Your task to perform on an android device: turn smart compose on in the gmail app Image 0: 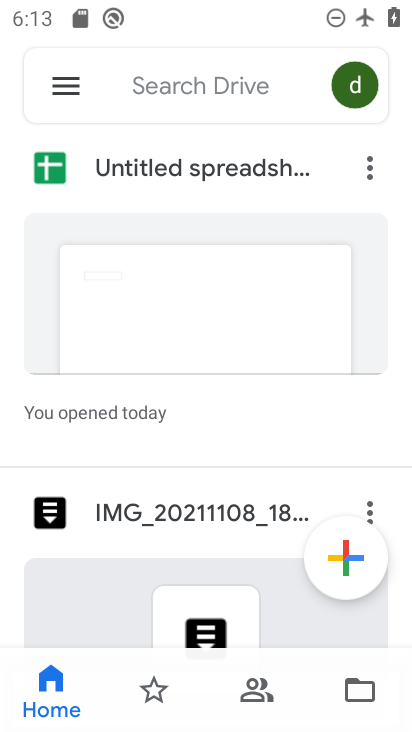
Step 0: press home button
Your task to perform on an android device: turn smart compose on in the gmail app Image 1: 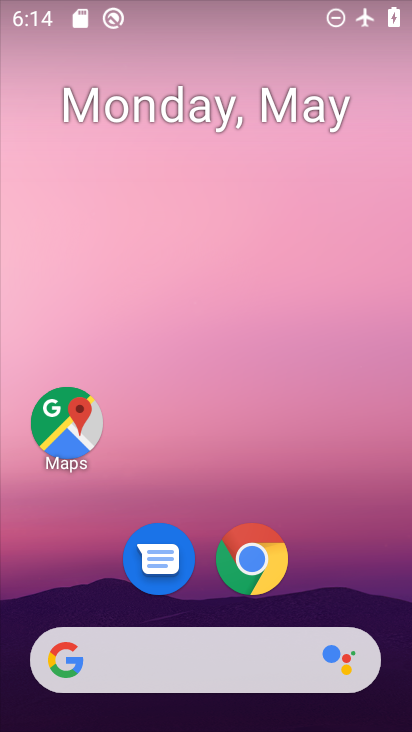
Step 1: drag from (300, 491) to (240, 4)
Your task to perform on an android device: turn smart compose on in the gmail app Image 2: 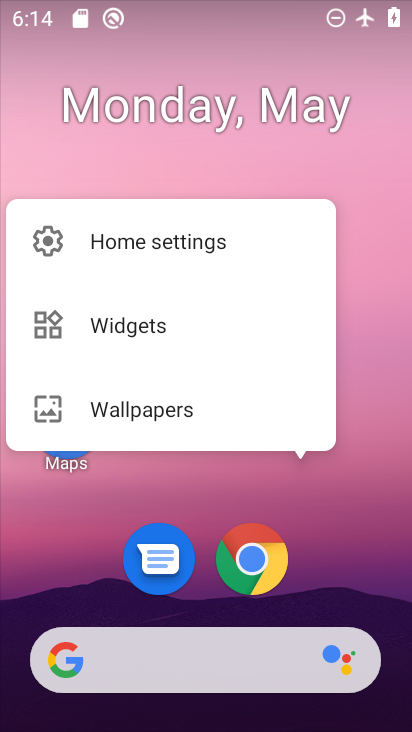
Step 2: click (367, 510)
Your task to perform on an android device: turn smart compose on in the gmail app Image 3: 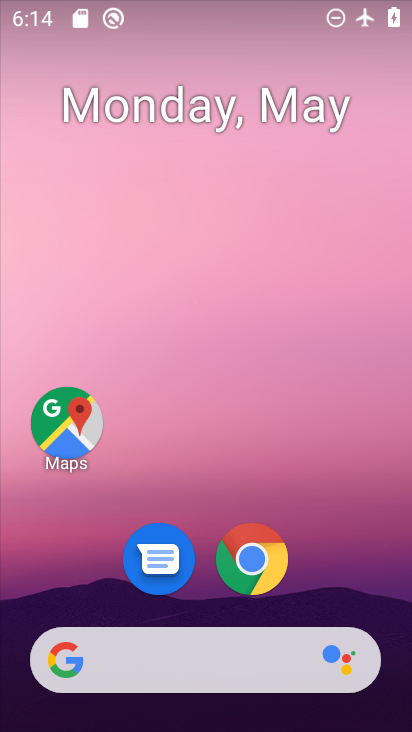
Step 3: drag from (356, 500) to (176, 35)
Your task to perform on an android device: turn smart compose on in the gmail app Image 4: 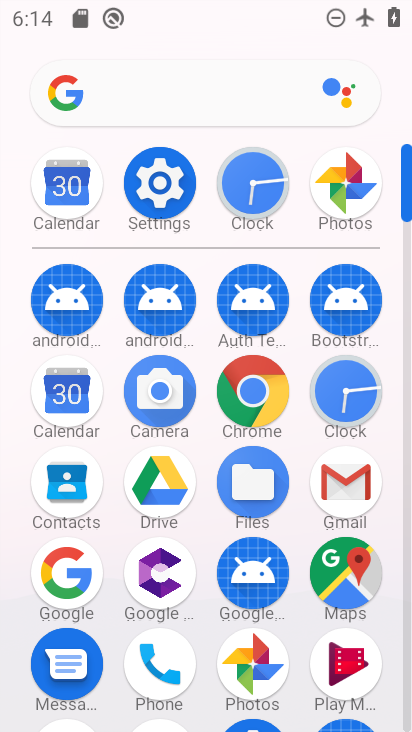
Step 4: click (346, 479)
Your task to perform on an android device: turn smart compose on in the gmail app Image 5: 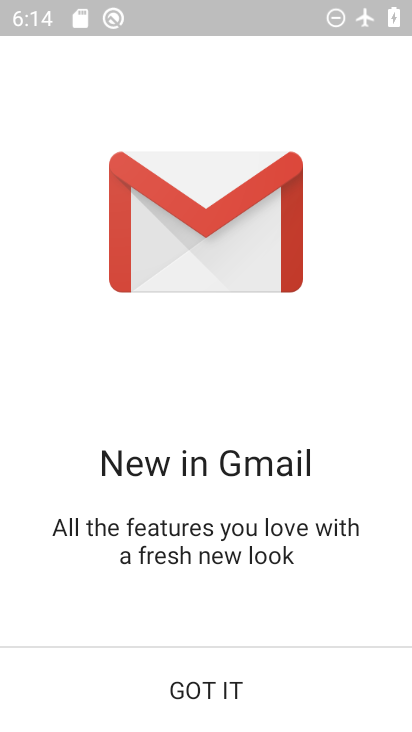
Step 5: click (211, 686)
Your task to perform on an android device: turn smart compose on in the gmail app Image 6: 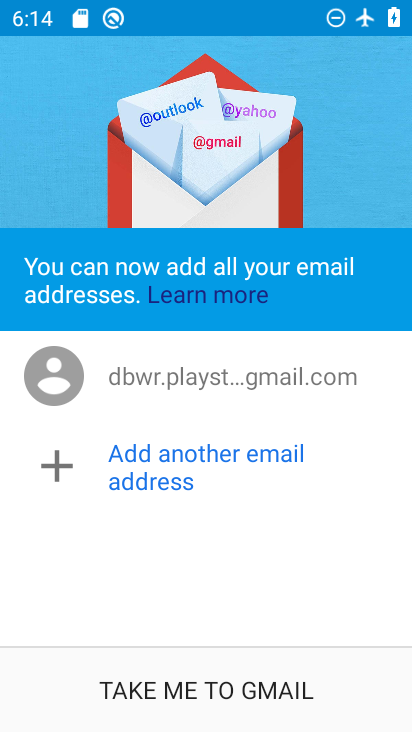
Step 6: click (211, 686)
Your task to perform on an android device: turn smart compose on in the gmail app Image 7: 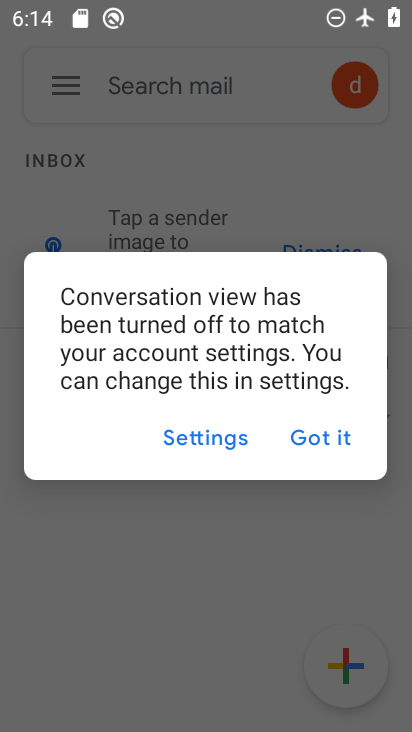
Step 7: click (292, 432)
Your task to perform on an android device: turn smart compose on in the gmail app Image 8: 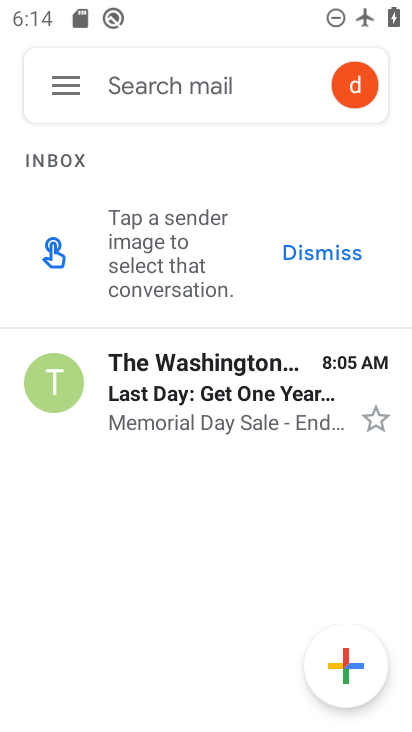
Step 8: click (68, 83)
Your task to perform on an android device: turn smart compose on in the gmail app Image 9: 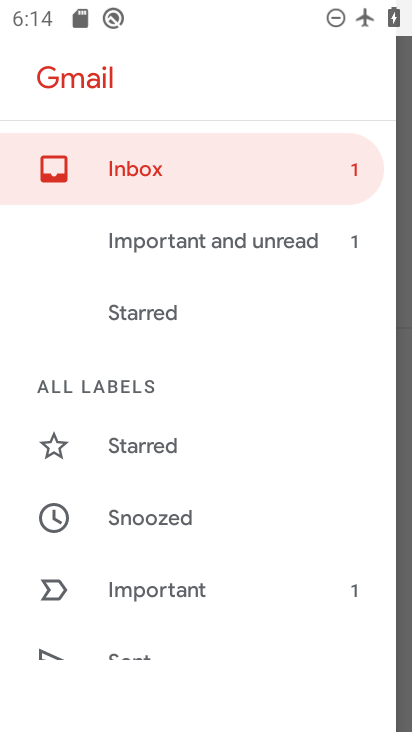
Step 9: drag from (228, 542) to (228, 234)
Your task to perform on an android device: turn smart compose on in the gmail app Image 10: 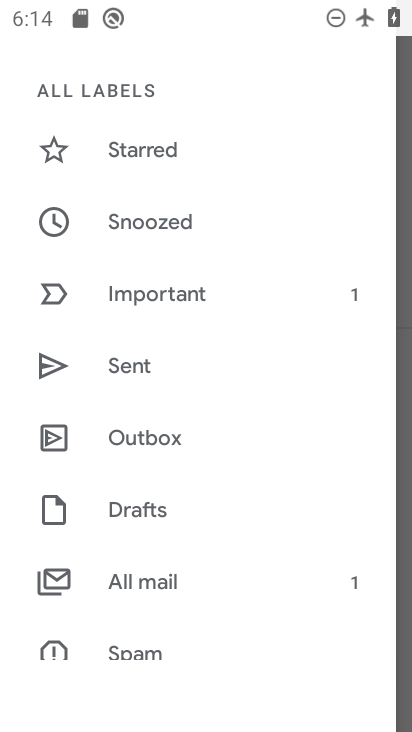
Step 10: drag from (239, 545) to (228, 225)
Your task to perform on an android device: turn smart compose on in the gmail app Image 11: 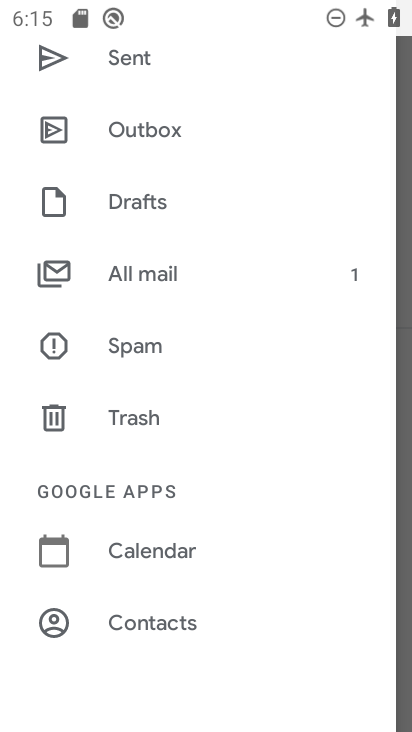
Step 11: drag from (209, 511) to (193, 85)
Your task to perform on an android device: turn smart compose on in the gmail app Image 12: 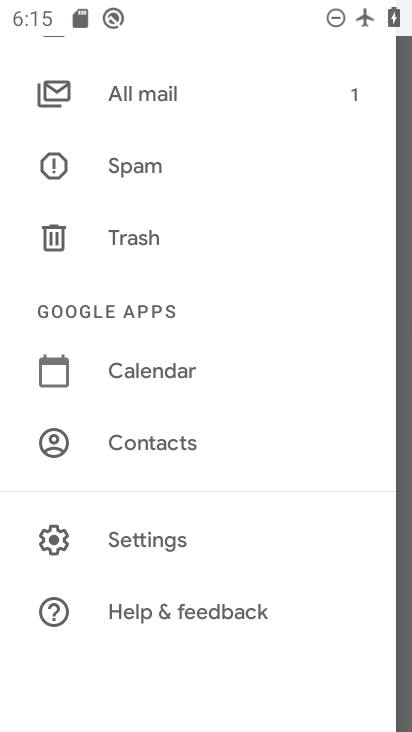
Step 12: click (156, 536)
Your task to perform on an android device: turn smart compose on in the gmail app Image 13: 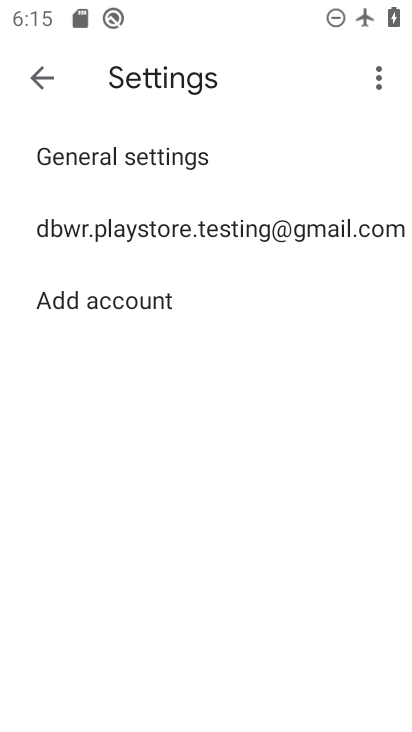
Step 13: click (142, 225)
Your task to perform on an android device: turn smart compose on in the gmail app Image 14: 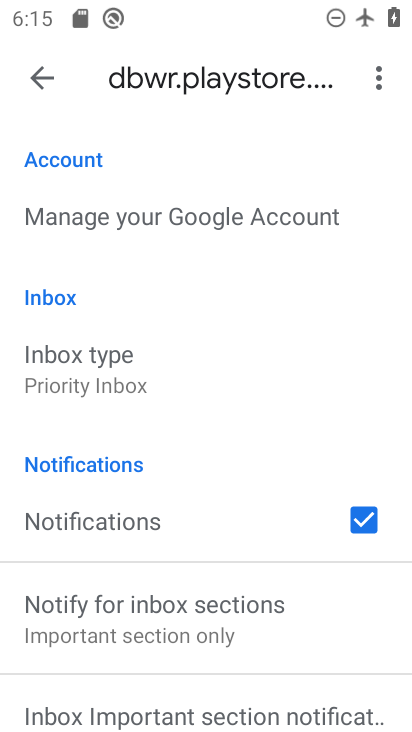
Step 14: task complete